Your task to perform on an android device: Go to Google Image 0: 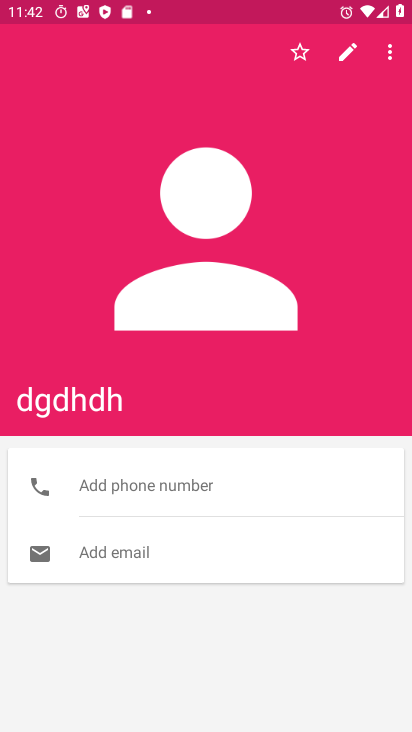
Step 0: press home button
Your task to perform on an android device: Go to Google Image 1: 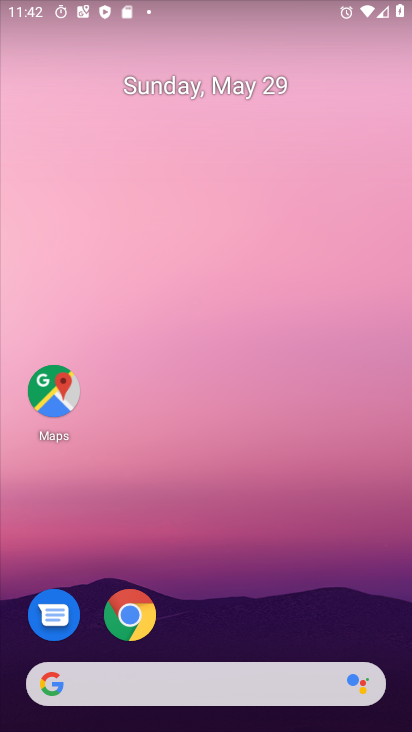
Step 1: drag from (205, 609) to (188, 87)
Your task to perform on an android device: Go to Google Image 2: 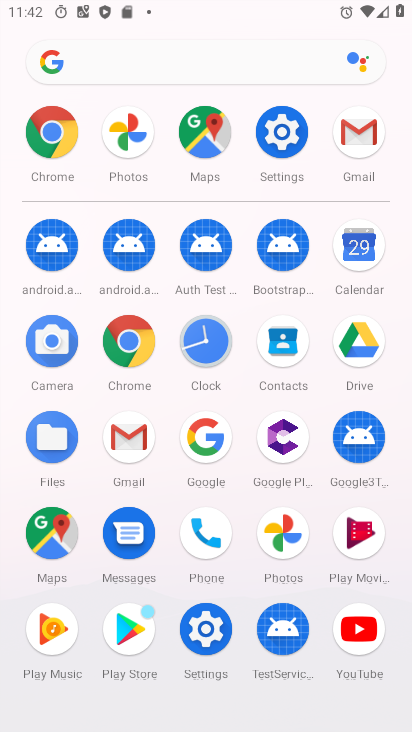
Step 2: click (203, 432)
Your task to perform on an android device: Go to Google Image 3: 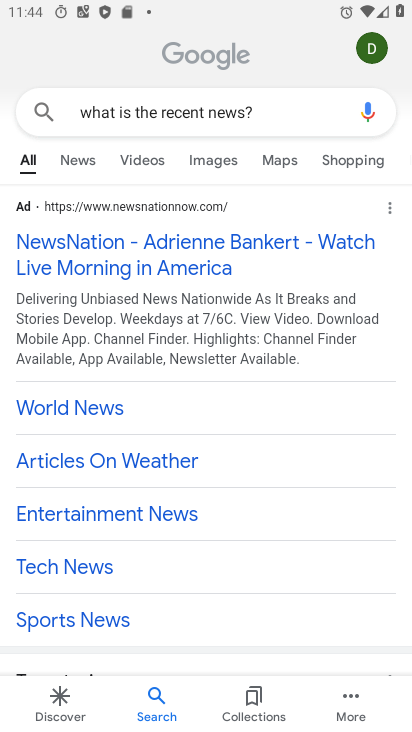
Step 3: task complete